Your task to perform on an android device: star an email in the gmail app Image 0: 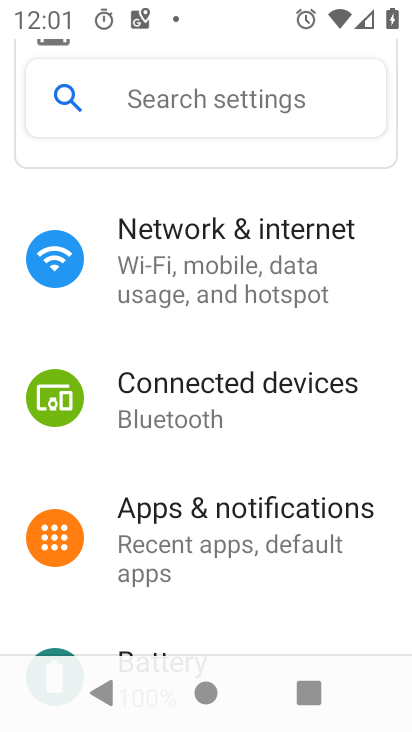
Step 0: press home button
Your task to perform on an android device: star an email in the gmail app Image 1: 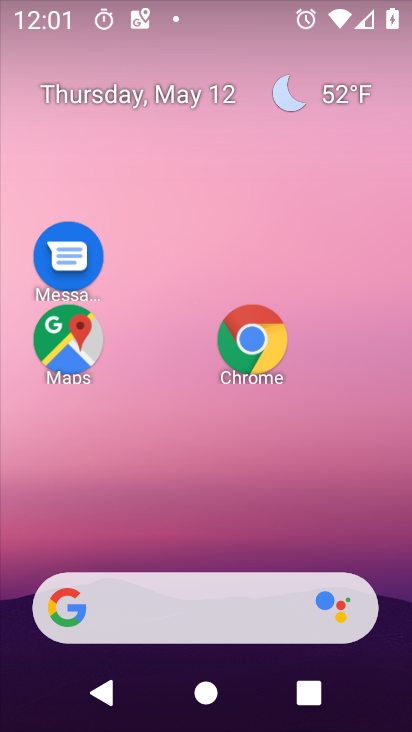
Step 1: drag from (178, 514) to (179, 122)
Your task to perform on an android device: star an email in the gmail app Image 2: 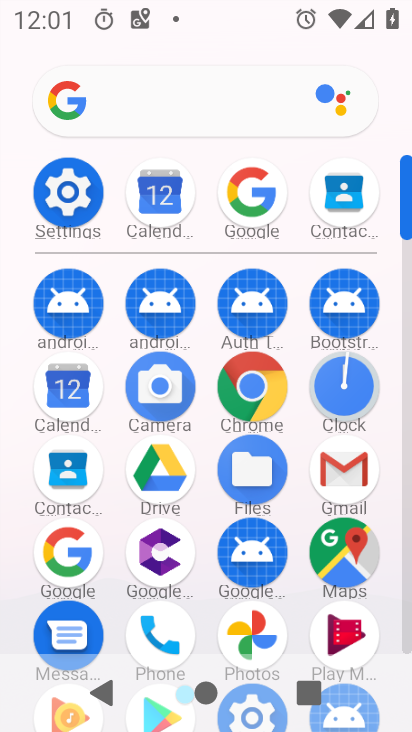
Step 2: click (347, 481)
Your task to perform on an android device: star an email in the gmail app Image 3: 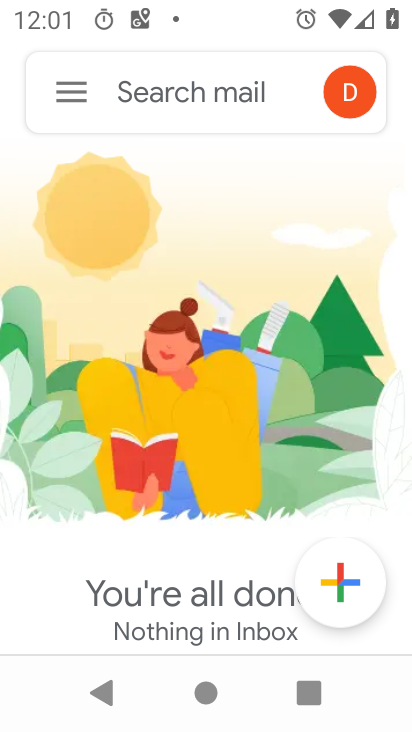
Step 3: click (69, 99)
Your task to perform on an android device: star an email in the gmail app Image 4: 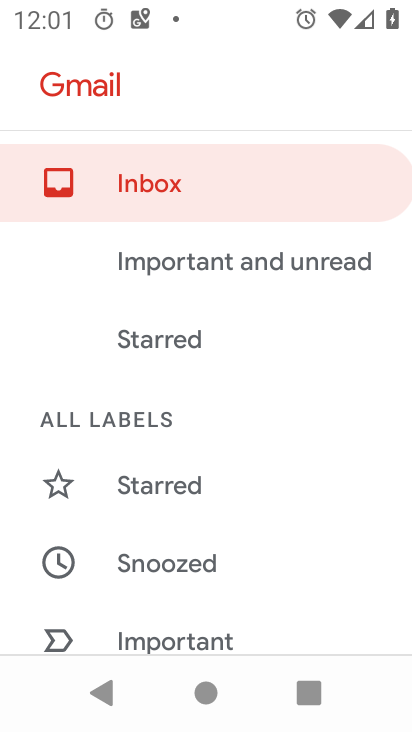
Step 4: drag from (249, 542) to (268, 285)
Your task to perform on an android device: star an email in the gmail app Image 5: 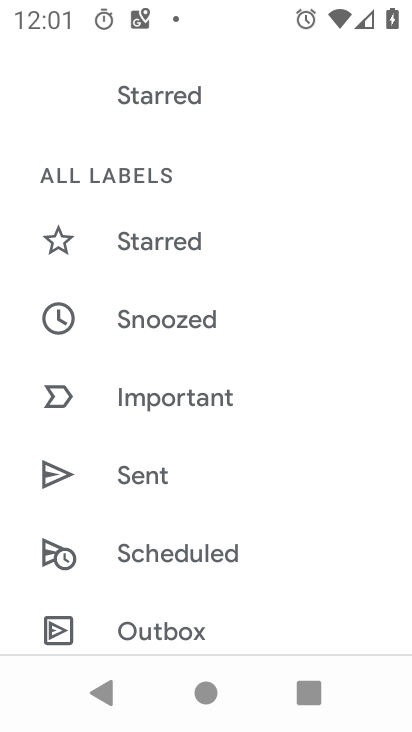
Step 5: drag from (208, 571) to (238, 231)
Your task to perform on an android device: star an email in the gmail app Image 6: 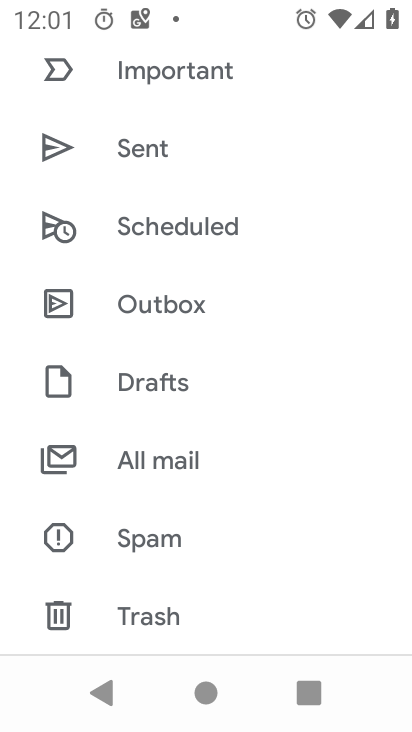
Step 6: click (149, 449)
Your task to perform on an android device: star an email in the gmail app Image 7: 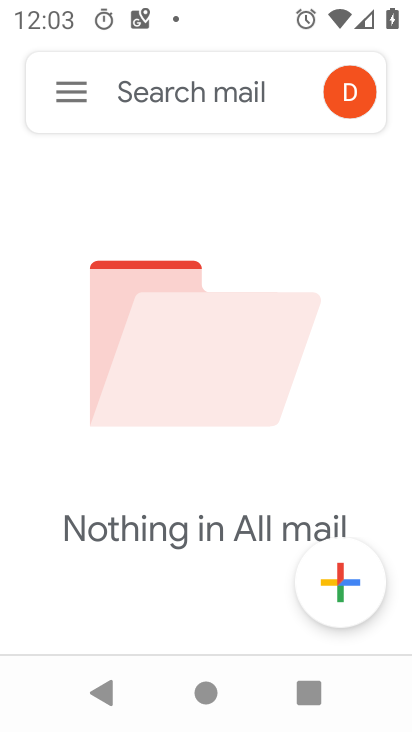
Step 7: task complete